Your task to perform on an android device: Open eBay Image 0: 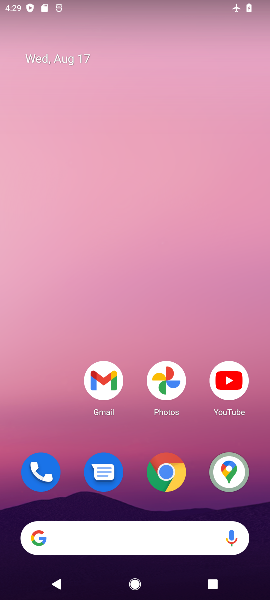
Step 0: click (175, 471)
Your task to perform on an android device: Open eBay Image 1: 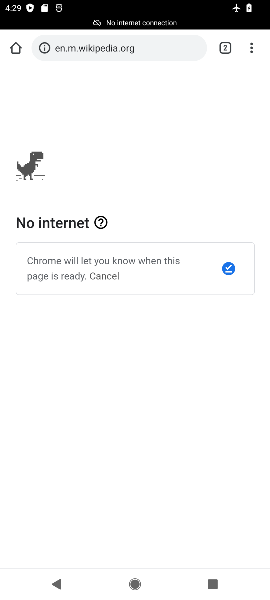
Step 1: click (225, 43)
Your task to perform on an android device: Open eBay Image 2: 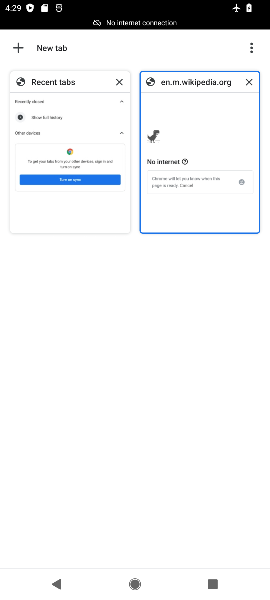
Step 2: click (19, 44)
Your task to perform on an android device: Open eBay Image 3: 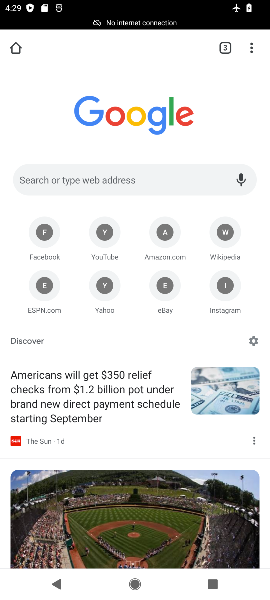
Step 3: click (131, 173)
Your task to perform on an android device: Open eBay Image 4: 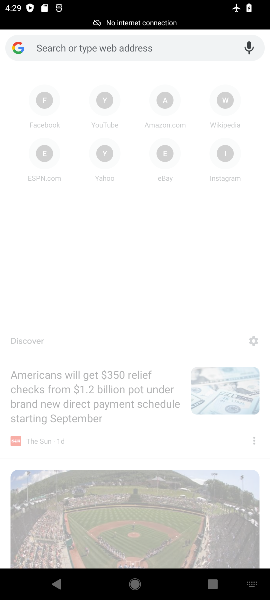
Step 4: type "eBay"
Your task to perform on an android device: Open eBay Image 5: 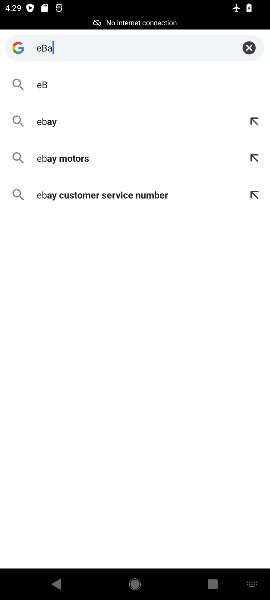
Step 5: type ""
Your task to perform on an android device: Open eBay Image 6: 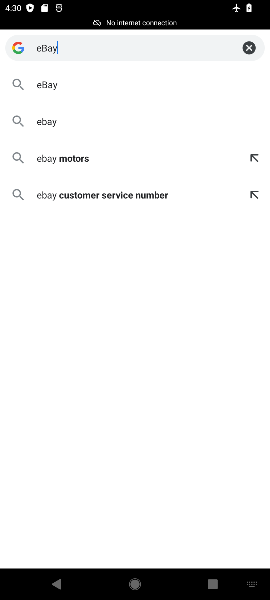
Step 6: click (59, 86)
Your task to perform on an android device: Open eBay Image 7: 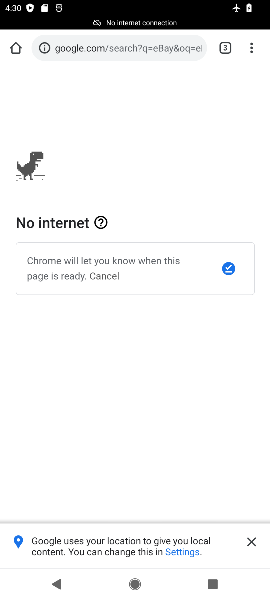
Step 7: task complete